Your task to perform on an android device: search for starred emails in the gmail app Image 0: 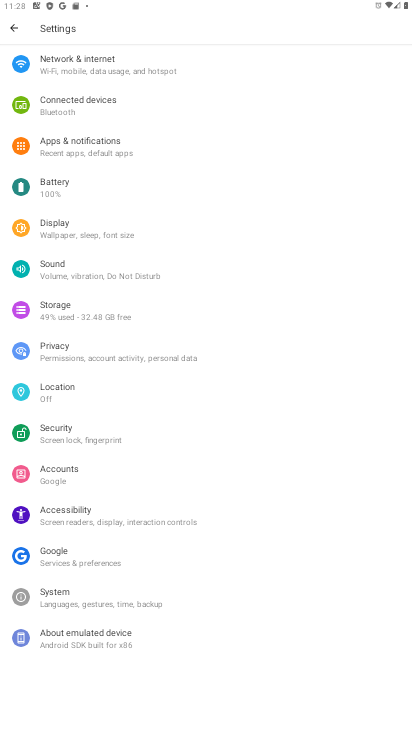
Step 0: drag from (228, 684) to (393, 225)
Your task to perform on an android device: search for starred emails in the gmail app Image 1: 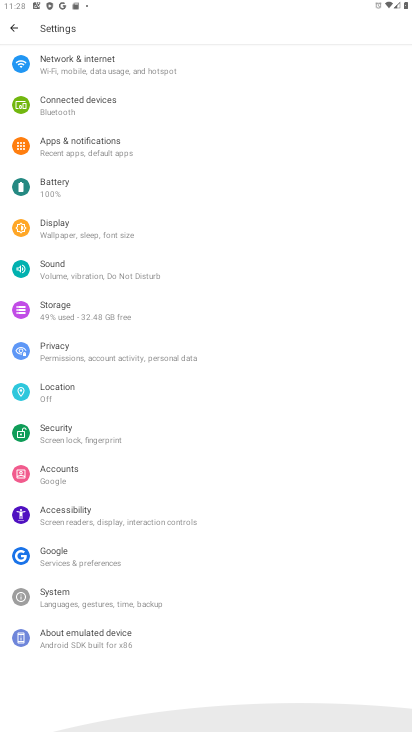
Step 1: press home button
Your task to perform on an android device: search for starred emails in the gmail app Image 2: 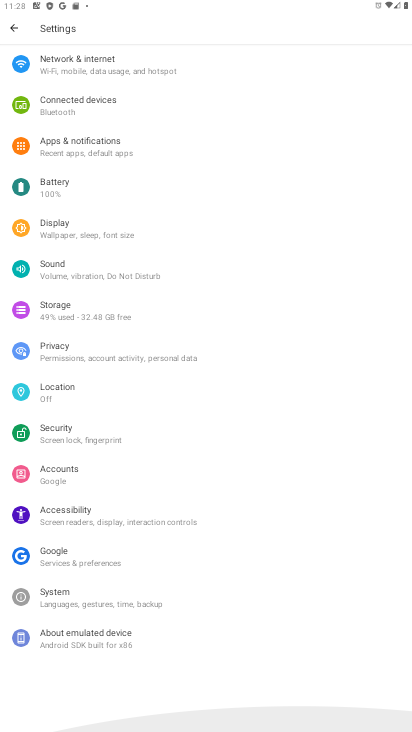
Step 2: click (409, 334)
Your task to perform on an android device: search for starred emails in the gmail app Image 3: 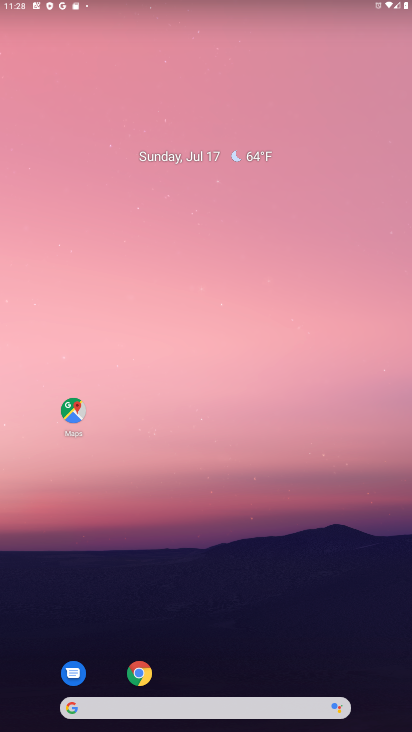
Step 3: drag from (210, 665) to (199, 59)
Your task to perform on an android device: search for starred emails in the gmail app Image 4: 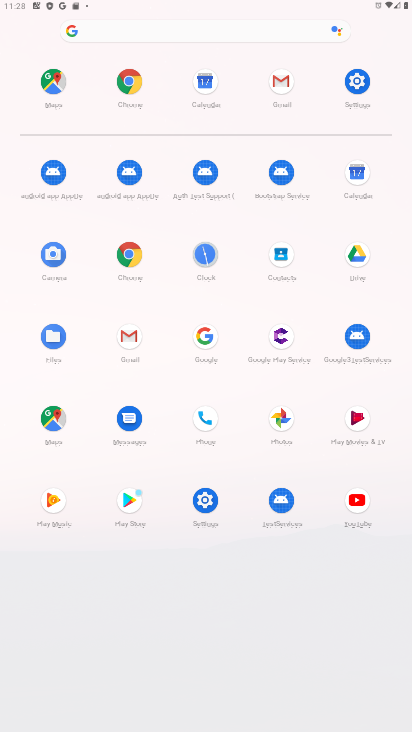
Step 4: click (132, 339)
Your task to perform on an android device: search for starred emails in the gmail app Image 5: 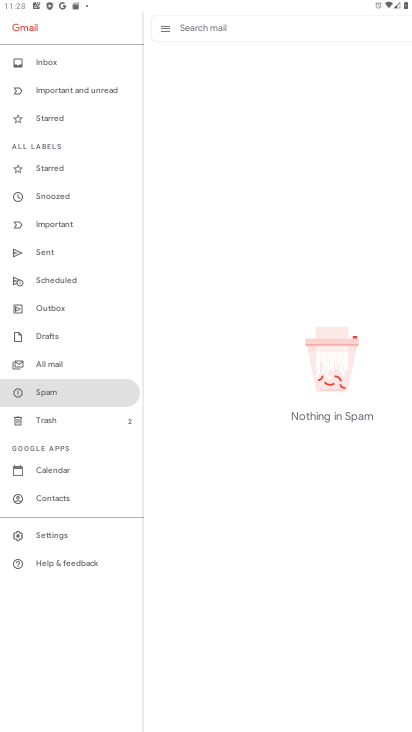
Step 5: click (53, 166)
Your task to perform on an android device: search for starred emails in the gmail app Image 6: 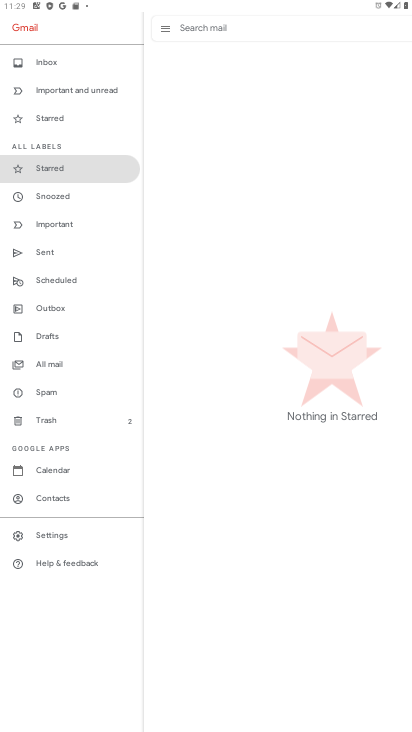
Step 6: task complete